Your task to perform on an android device: open a new tab in the chrome app Image 0: 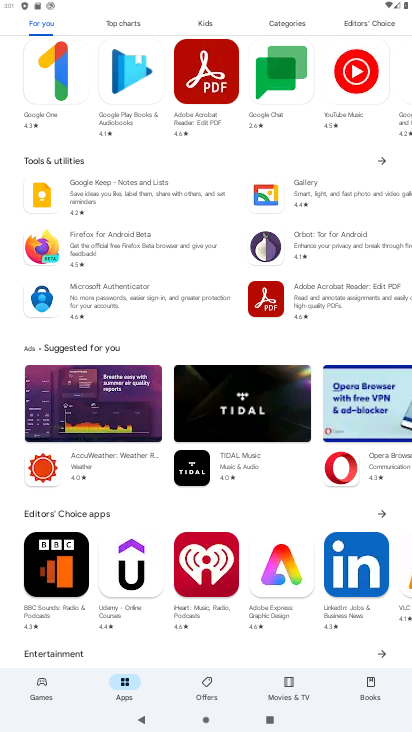
Step 0: task complete